Your task to perform on an android device: check google app version Image 0: 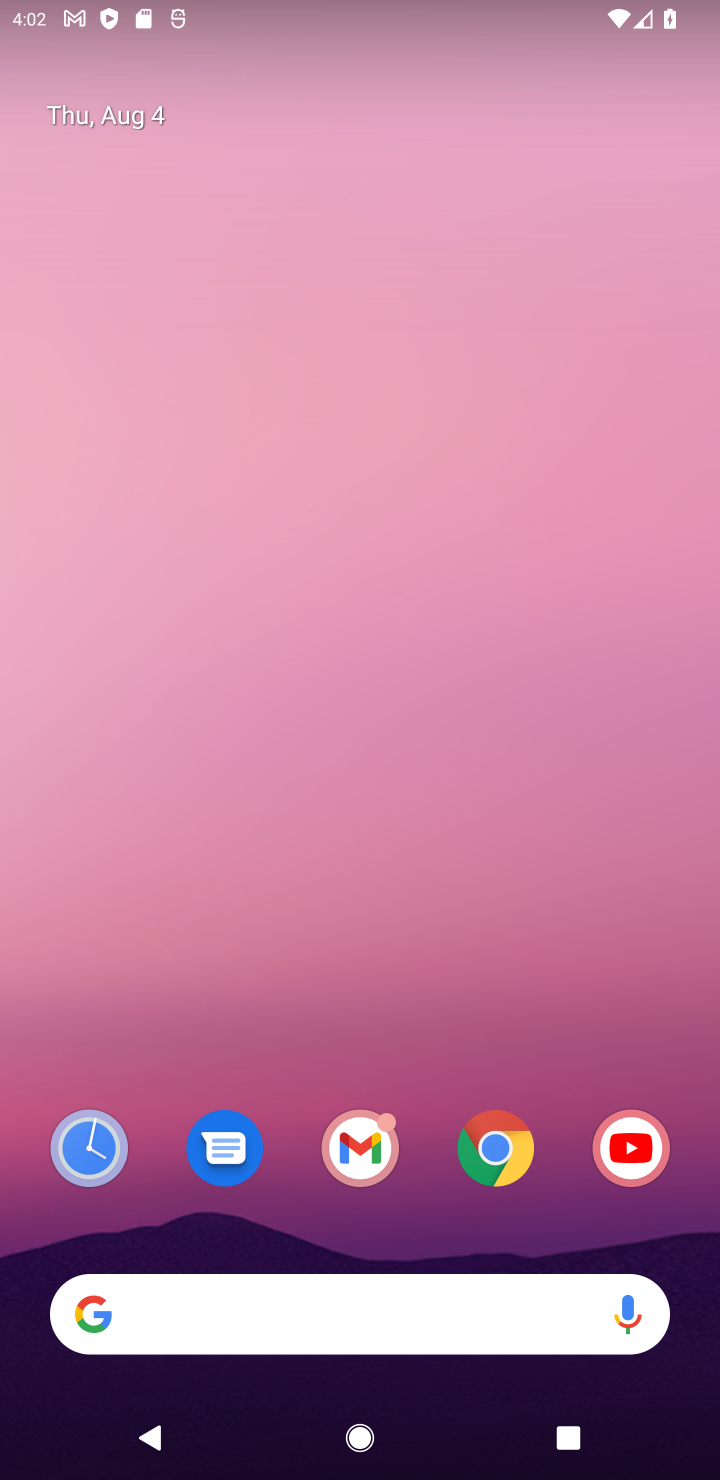
Step 0: click (496, 1157)
Your task to perform on an android device: check google app version Image 1: 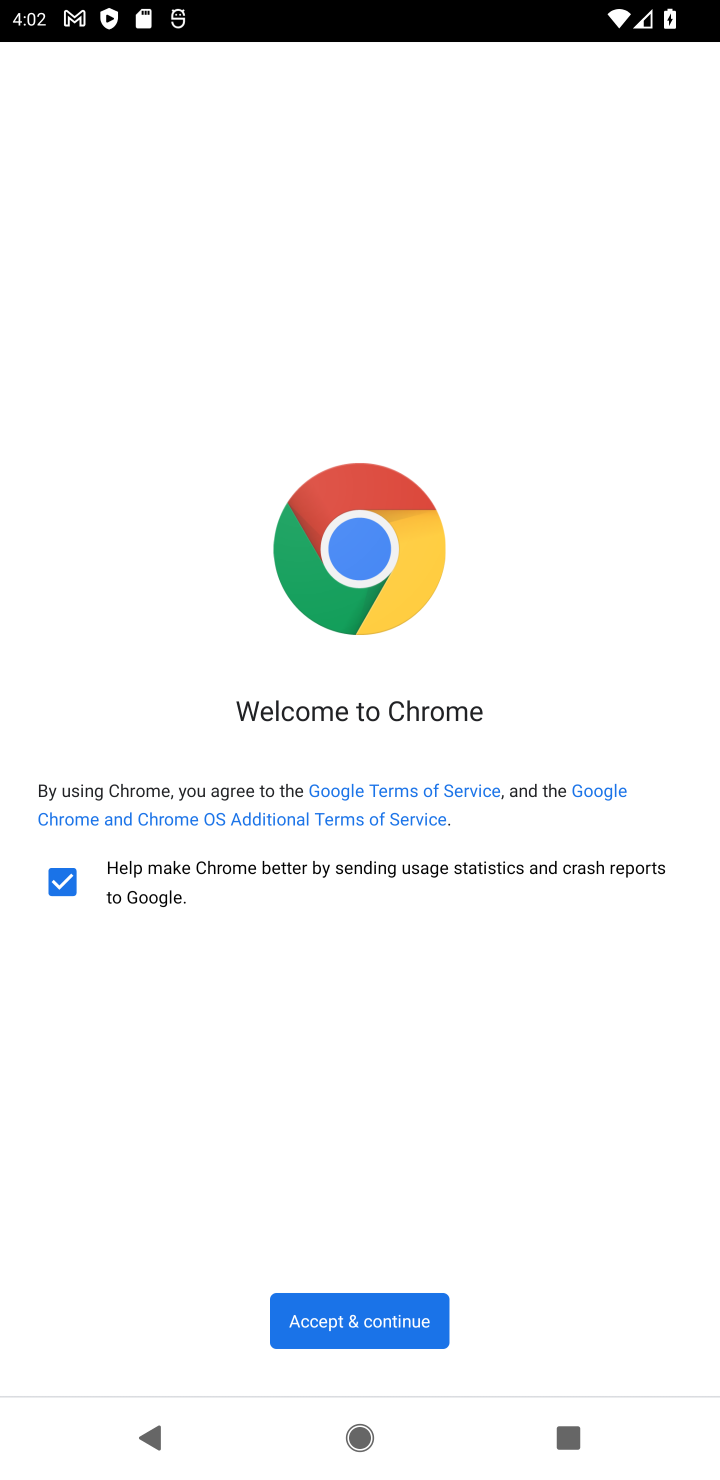
Step 1: click (359, 1330)
Your task to perform on an android device: check google app version Image 2: 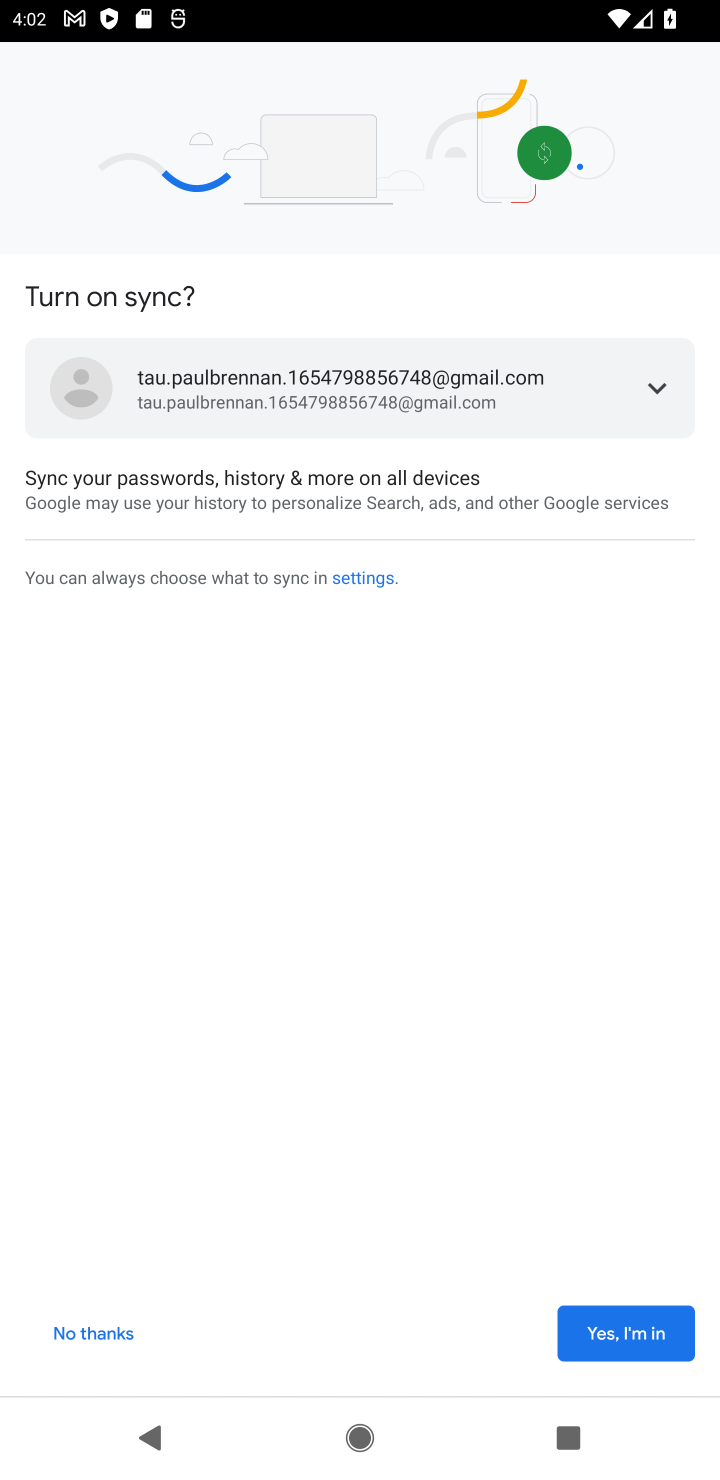
Step 2: click (618, 1332)
Your task to perform on an android device: check google app version Image 3: 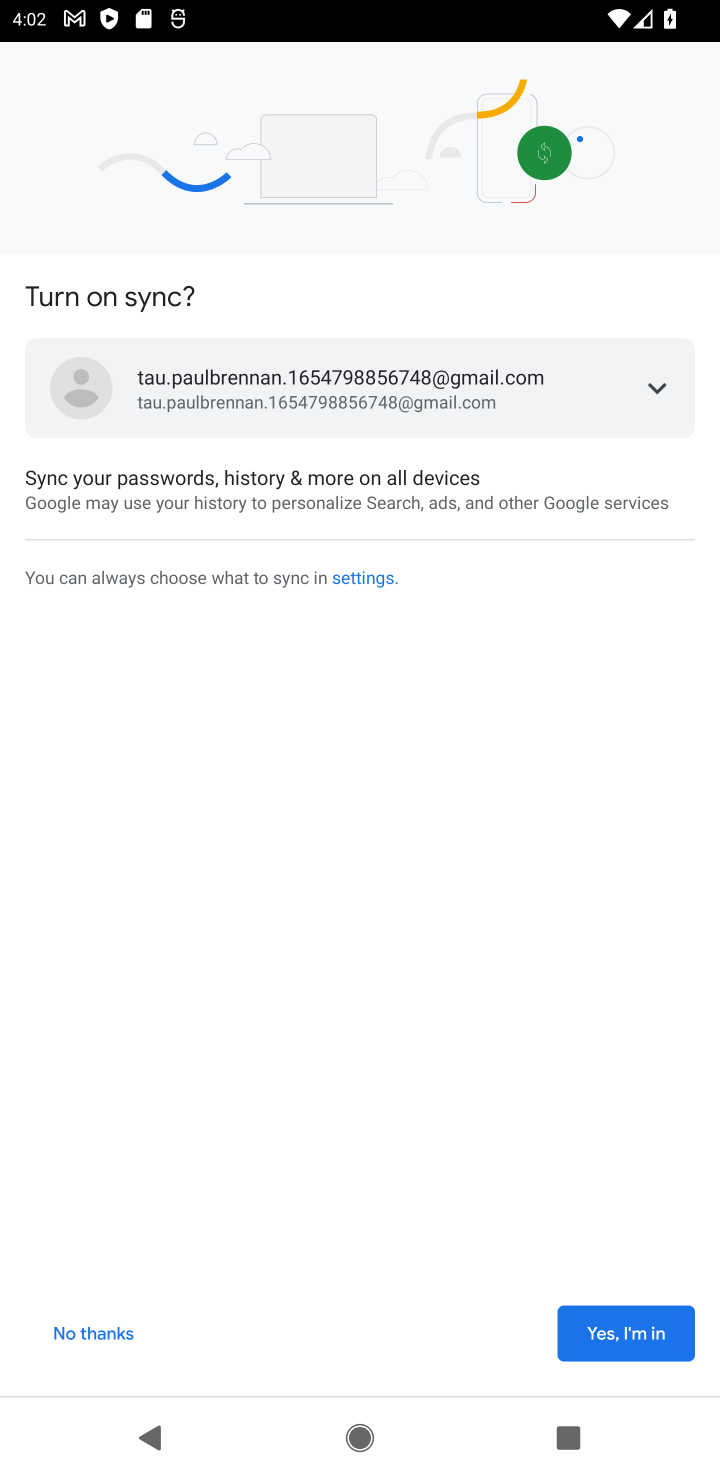
Step 3: click (626, 1332)
Your task to perform on an android device: check google app version Image 4: 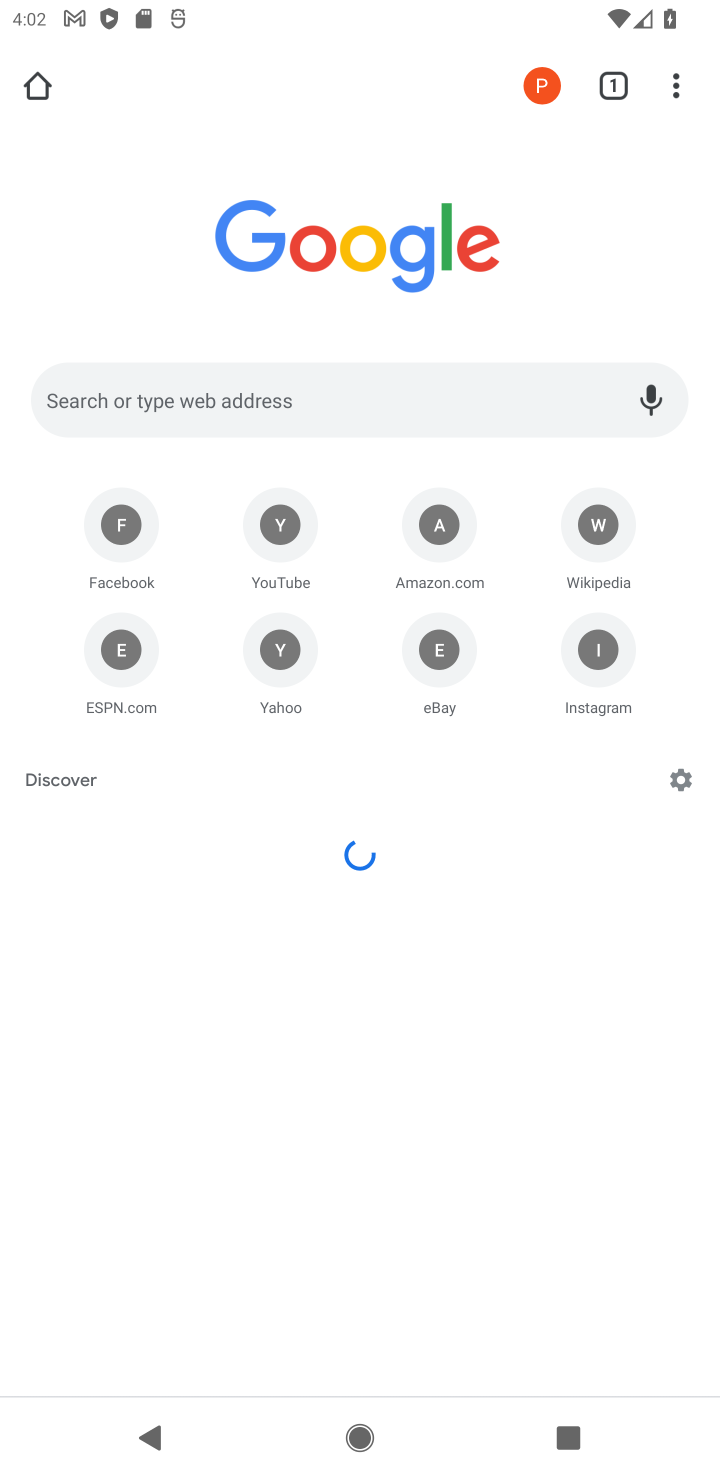
Step 4: click (673, 94)
Your task to perform on an android device: check google app version Image 5: 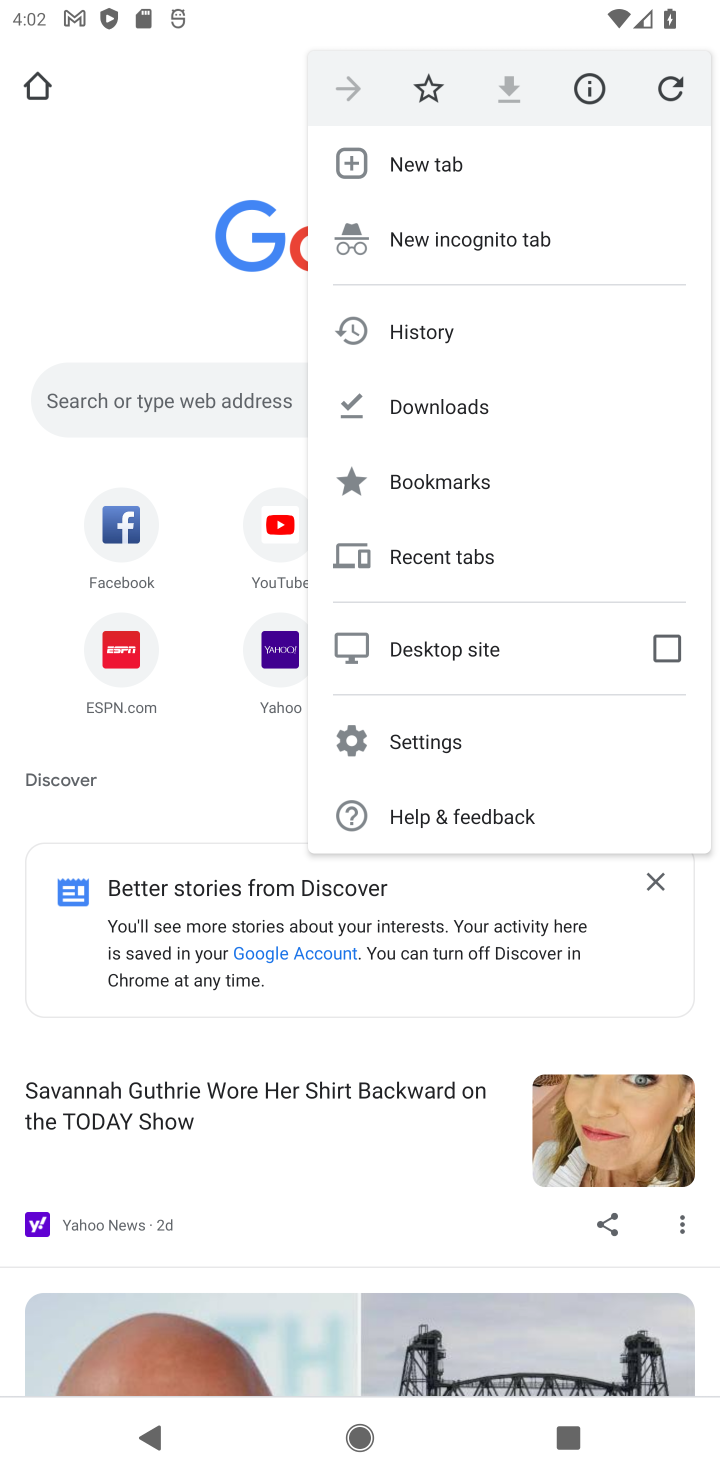
Step 5: click (428, 735)
Your task to perform on an android device: check google app version Image 6: 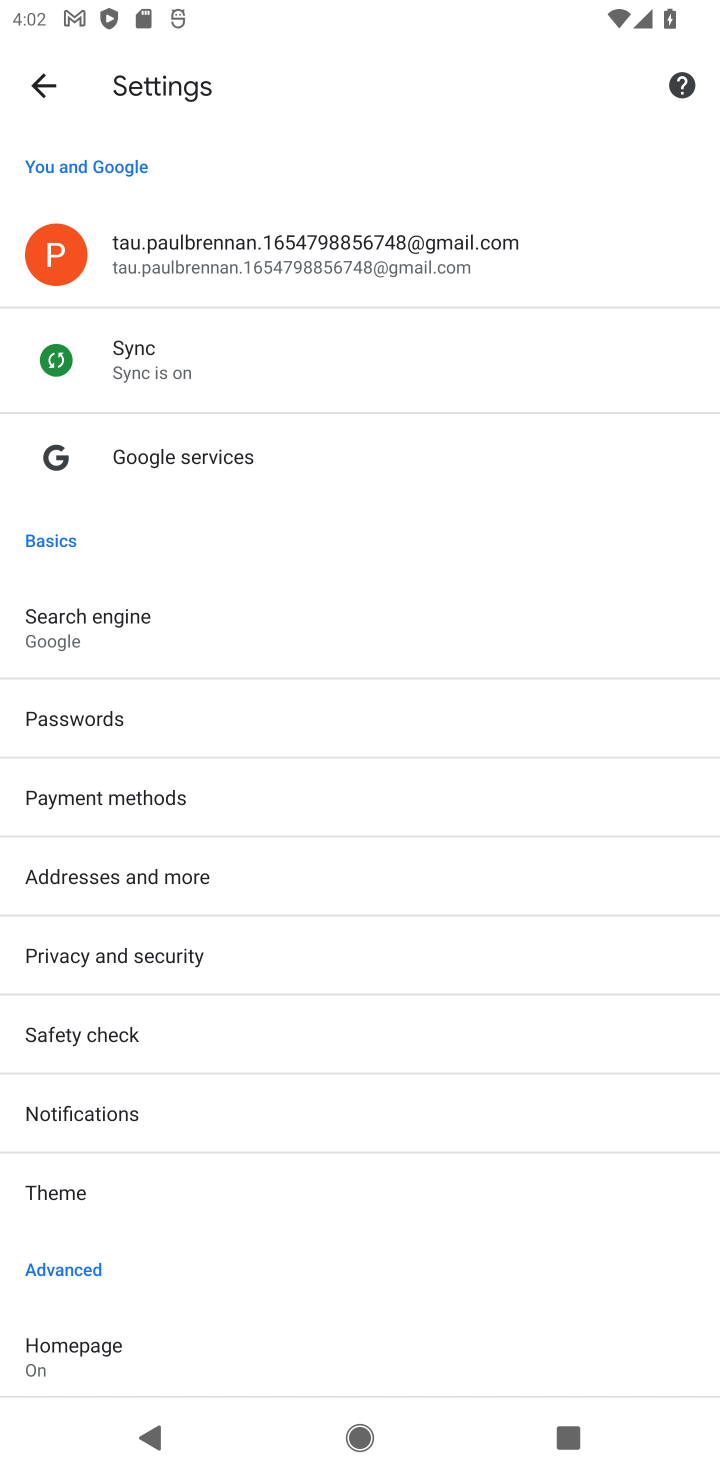
Step 6: drag from (306, 1244) to (328, 605)
Your task to perform on an android device: check google app version Image 7: 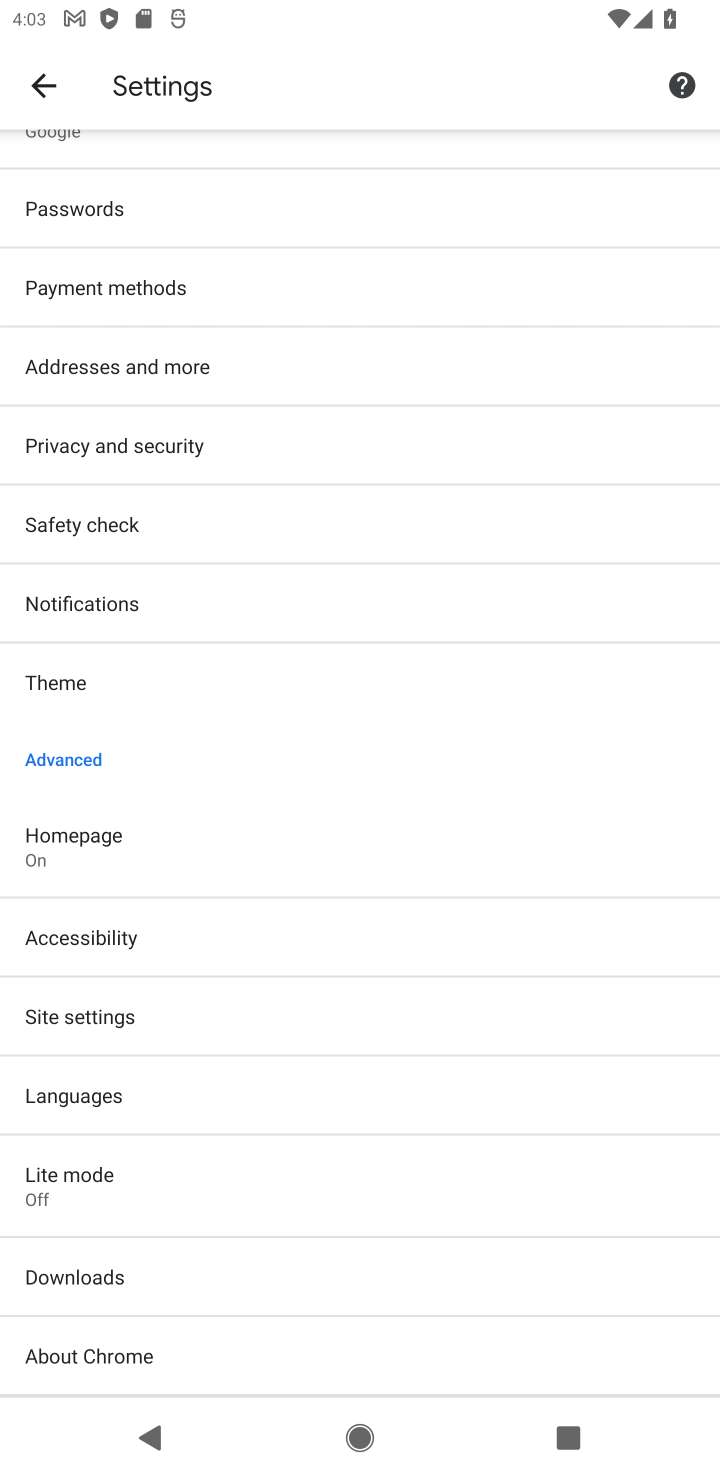
Step 7: click (99, 1356)
Your task to perform on an android device: check google app version Image 8: 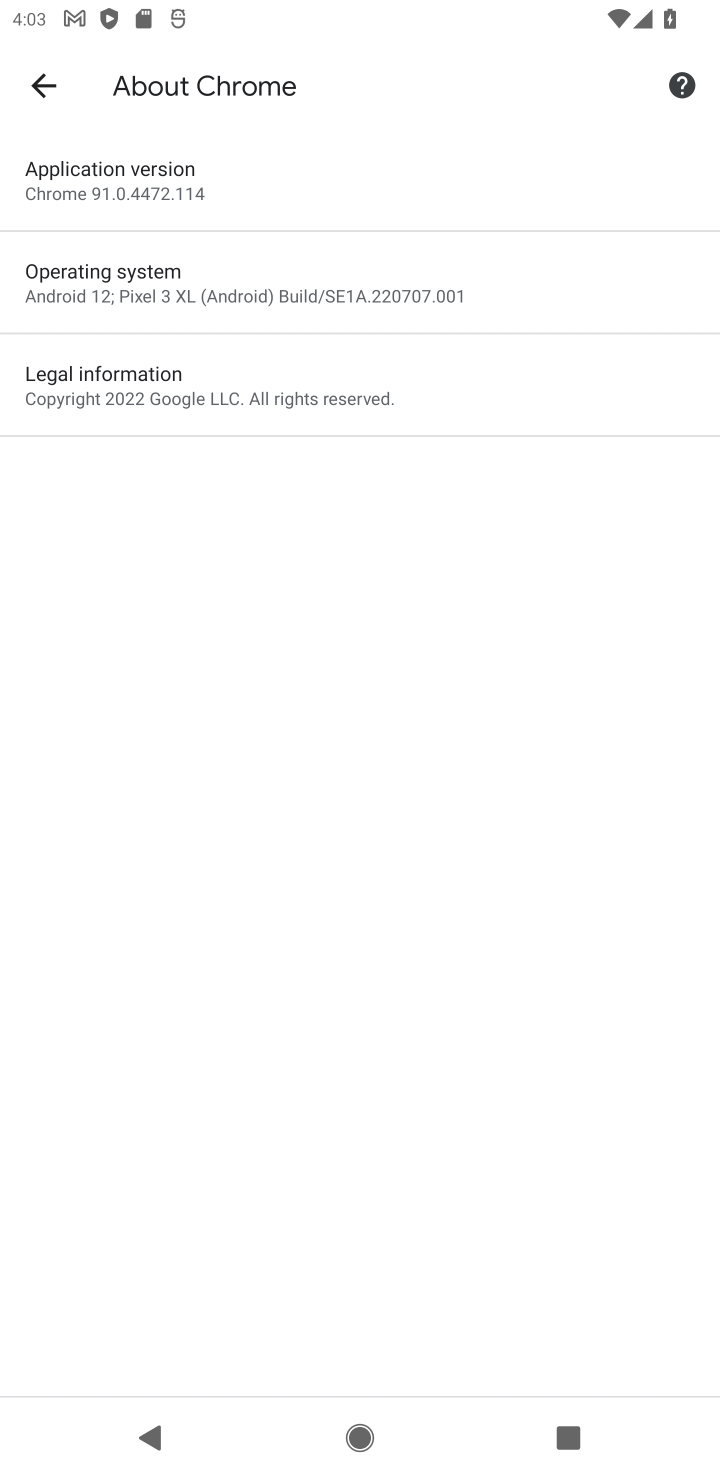
Step 8: click (116, 179)
Your task to perform on an android device: check google app version Image 9: 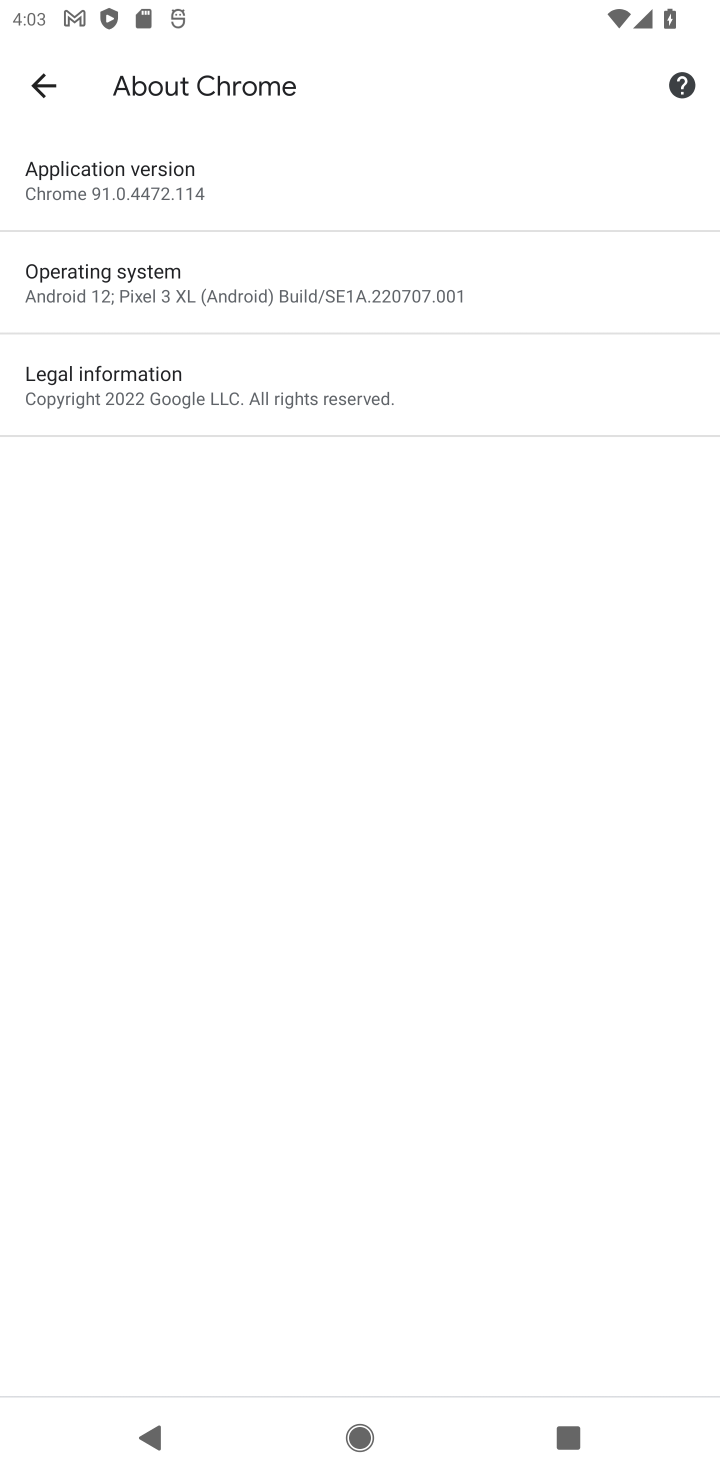
Step 9: task complete